Your task to perform on an android device: find which apps use the phone's location Image 0: 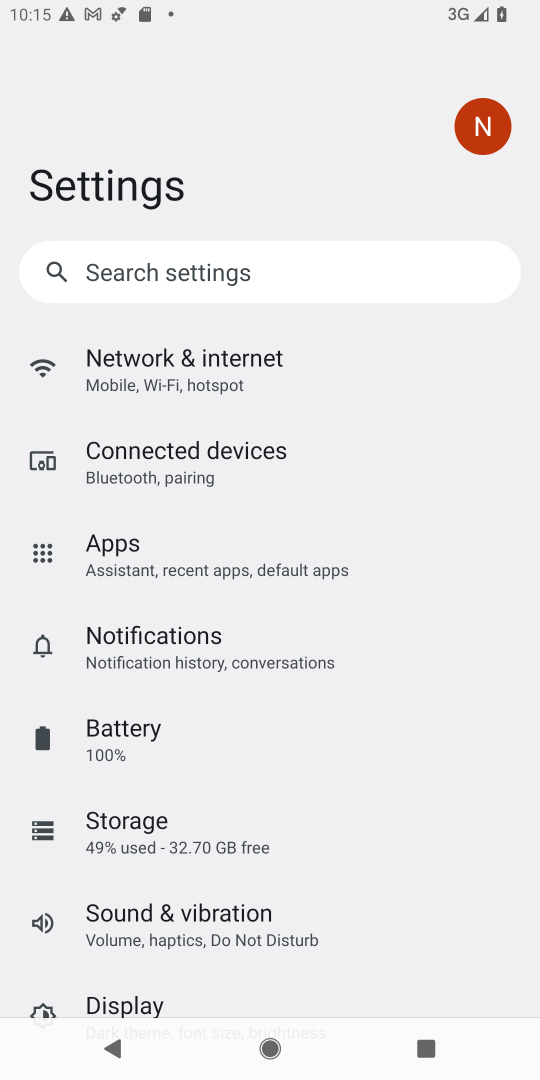
Step 0: press home button
Your task to perform on an android device: find which apps use the phone's location Image 1: 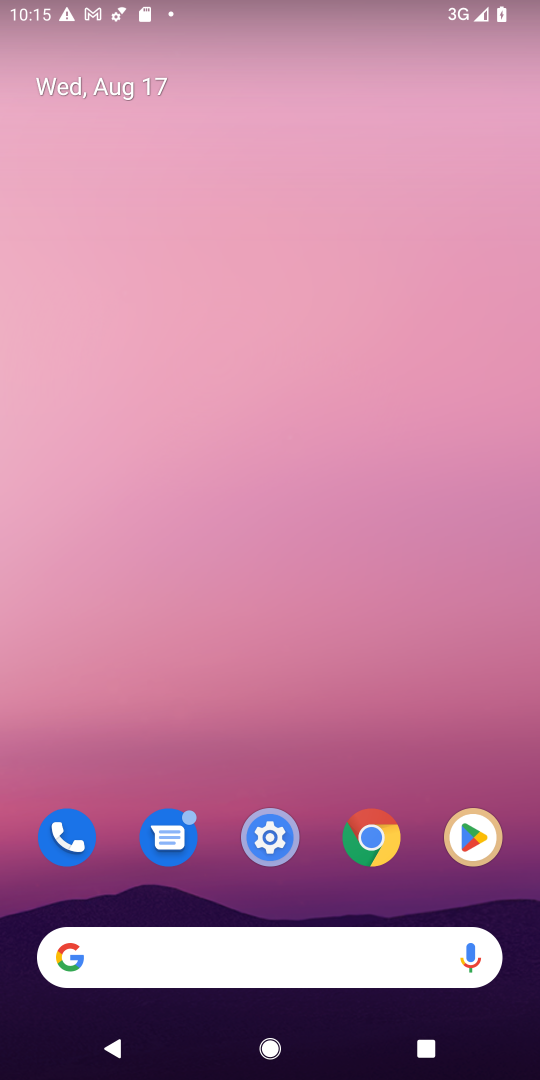
Step 1: drag from (241, 966) to (255, 290)
Your task to perform on an android device: find which apps use the phone's location Image 2: 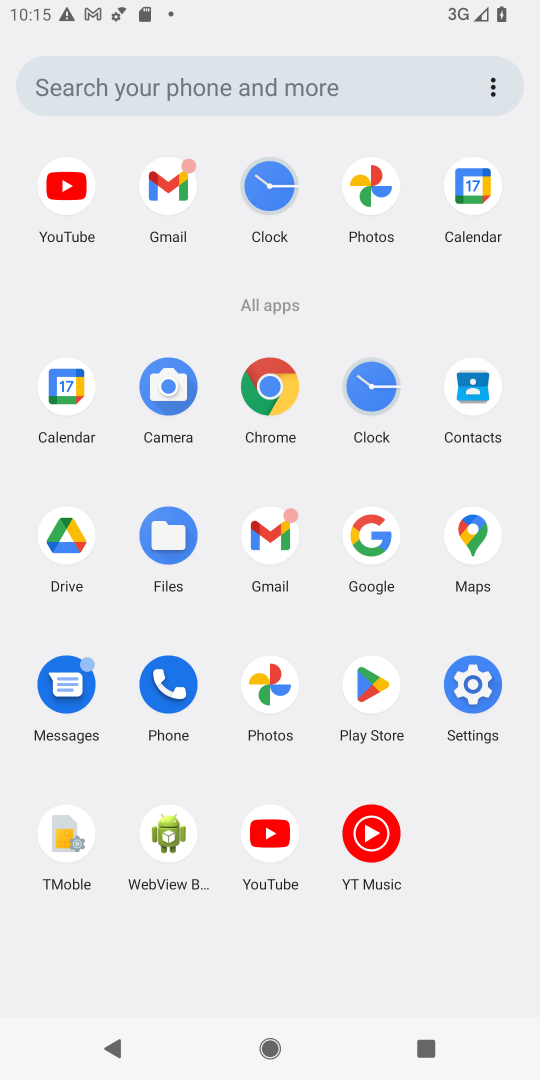
Step 2: click (471, 686)
Your task to perform on an android device: find which apps use the phone's location Image 3: 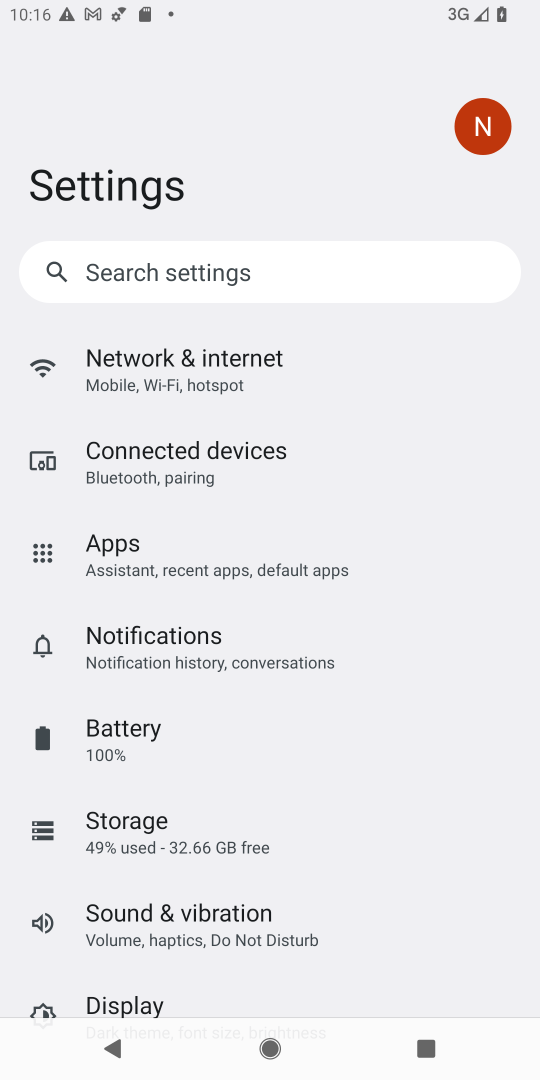
Step 3: drag from (224, 778) to (299, 596)
Your task to perform on an android device: find which apps use the phone's location Image 4: 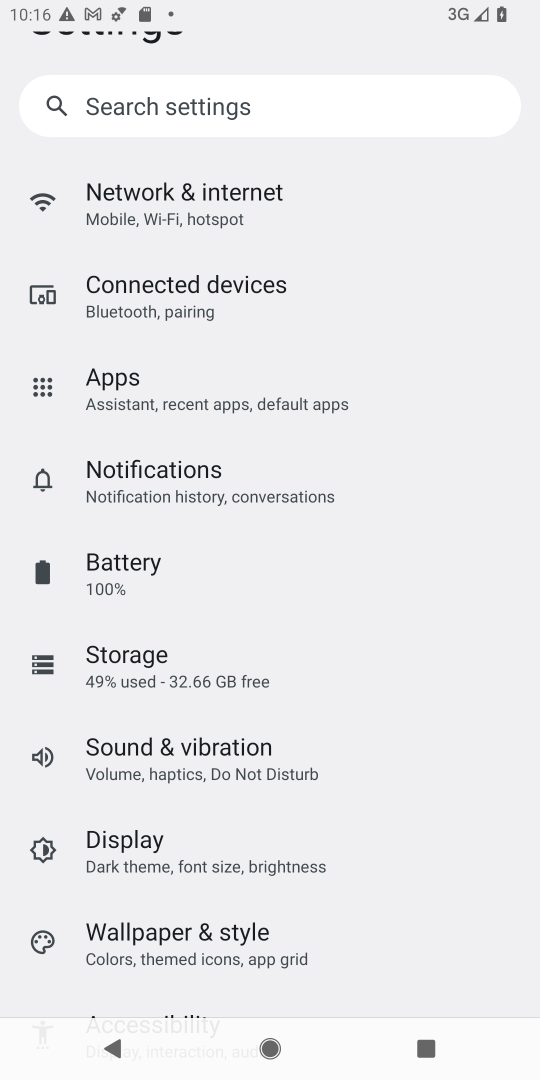
Step 4: drag from (198, 707) to (252, 596)
Your task to perform on an android device: find which apps use the phone's location Image 5: 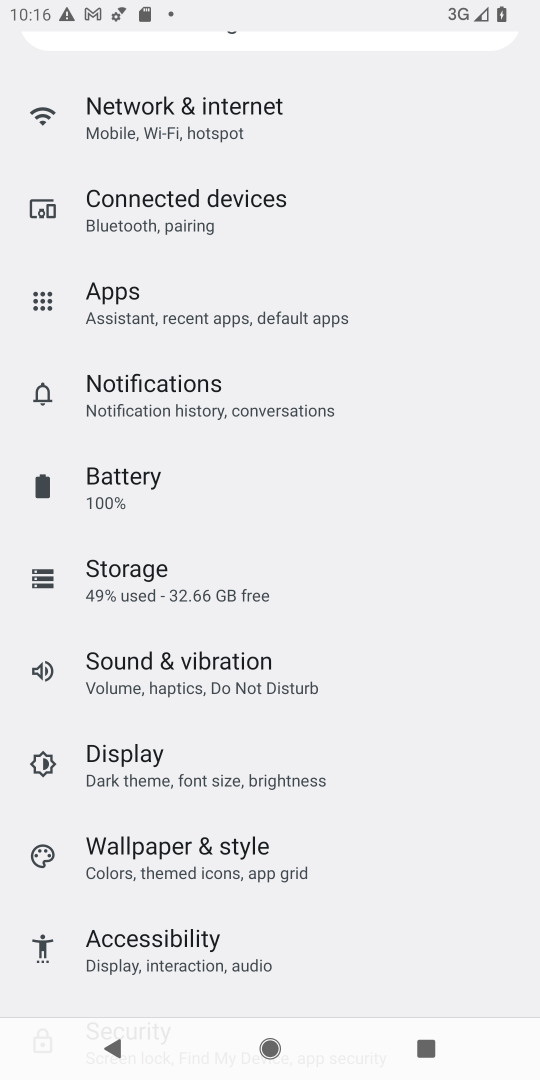
Step 5: drag from (155, 718) to (225, 601)
Your task to perform on an android device: find which apps use the phone's location Image 6: 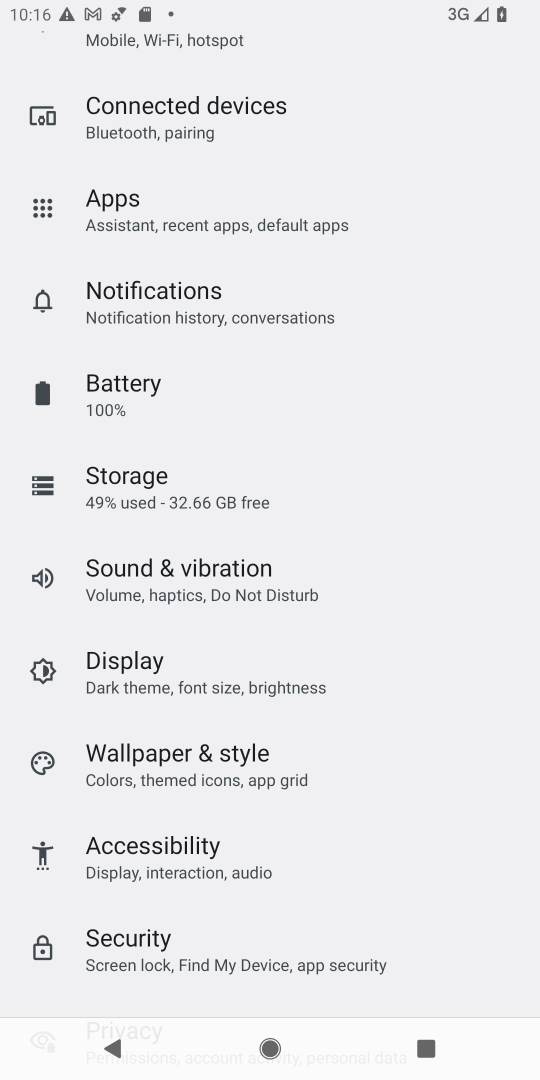
Step 6: drag from (157, 810) to (276, 655)
Your task to perform on an android device: find which apps use the phone's location Image 7: 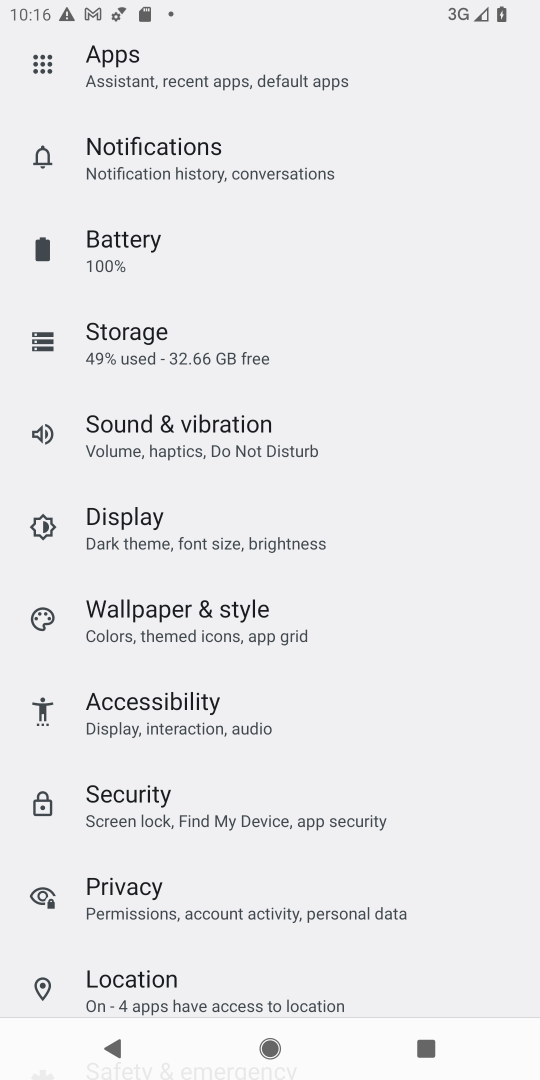
Step 7: drag from (152, 759) to (246, 608)
Your task to perform on an android device: find which apps use the phone's location Image 8: 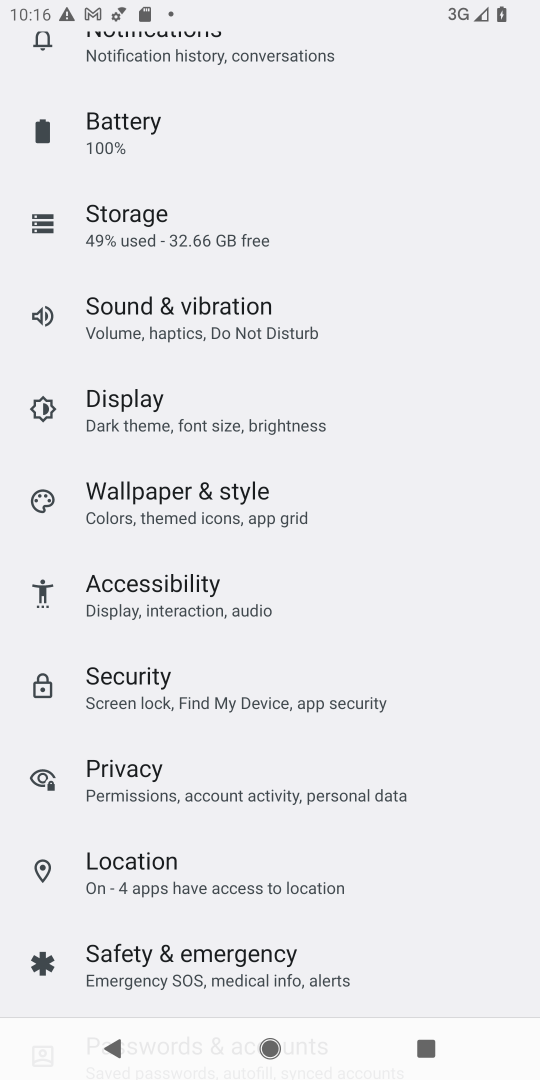
Step 8: click (145, 872)
Your task to perform on an android device: find which apps use the phone's location Image 9: 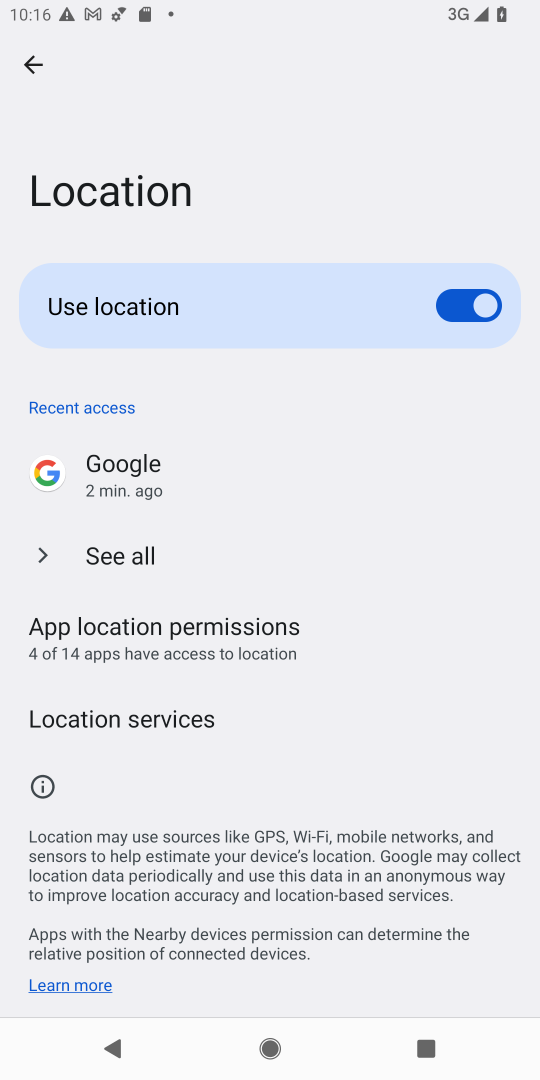
Step 9: click (216, 638)
Your task to perform on an android device: find which apps use the phone's location Image 10: 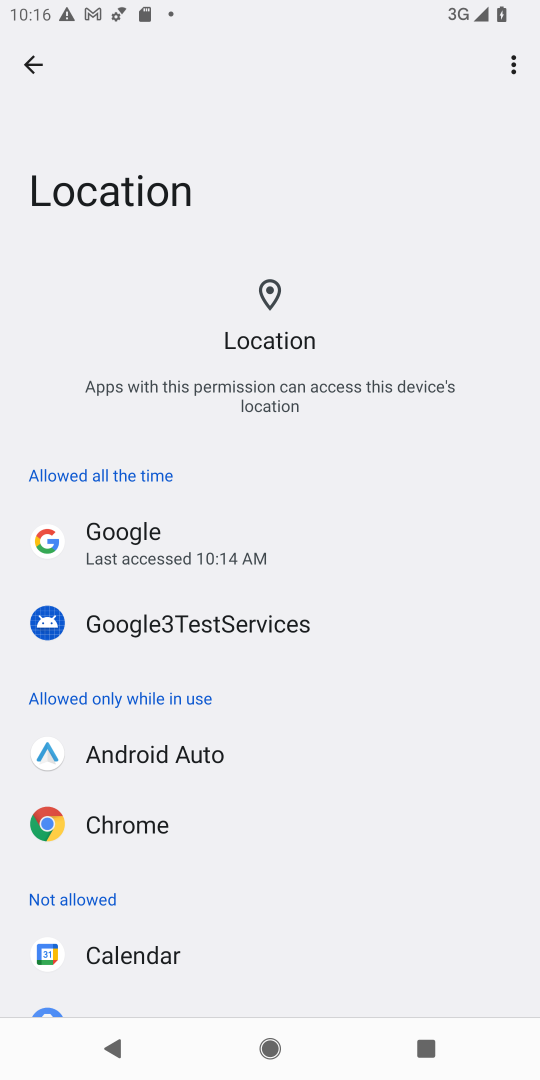
Step 10: drag from (234, 862) to (390, 671)
Your task to perform on an android device: find which apps use the phone's location Image 11: 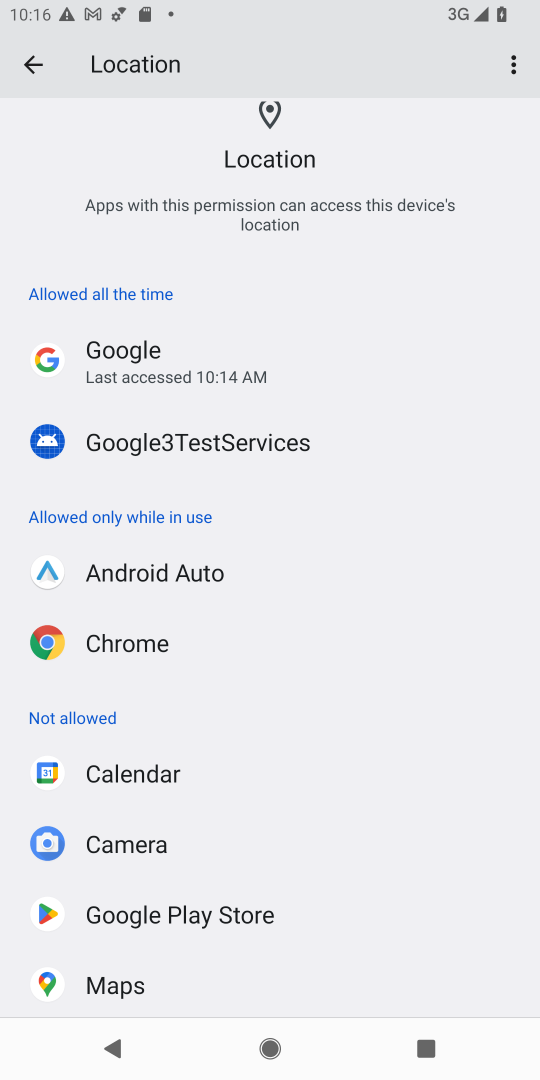
Step 11: click (122, 992)
Your task to perform on an android device: find which apps use the phone's location Image 12: 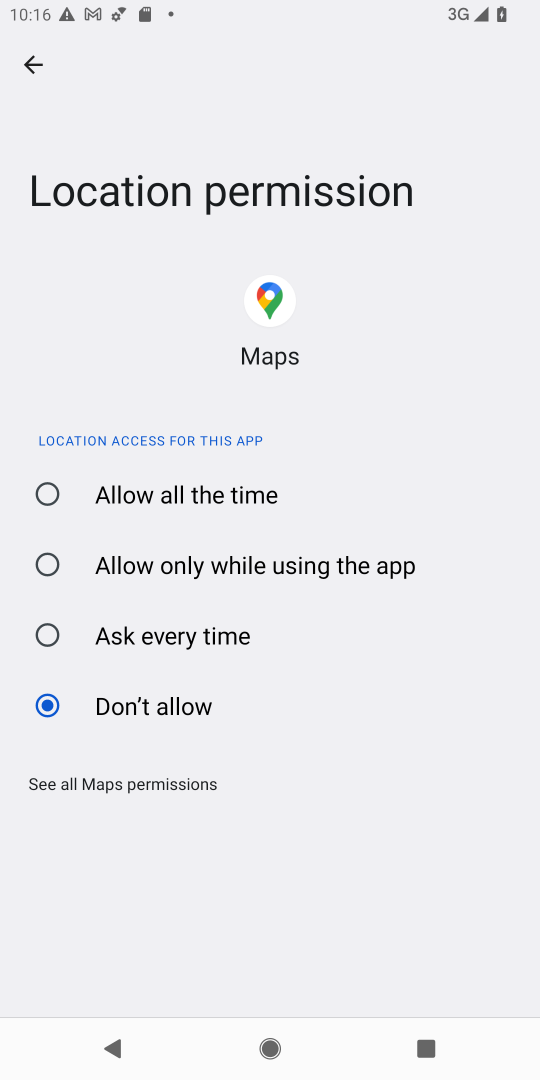
Step 12: click (54, 490)
Your task to perform on an android device: find which apps use the phone's location Image 13: 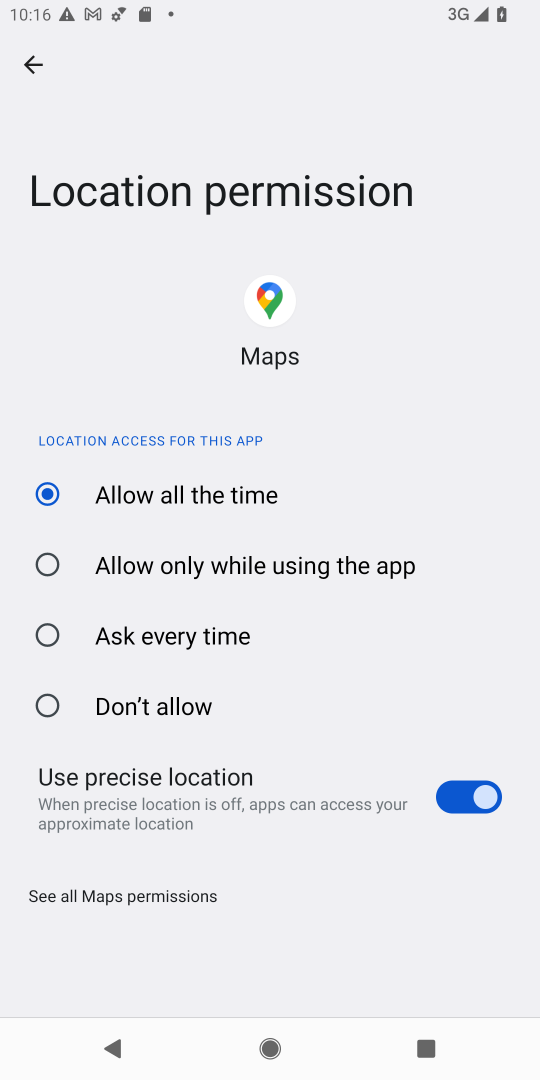
Step 13: task complete